Your task to perform on an android device: Open location settings Image 0: 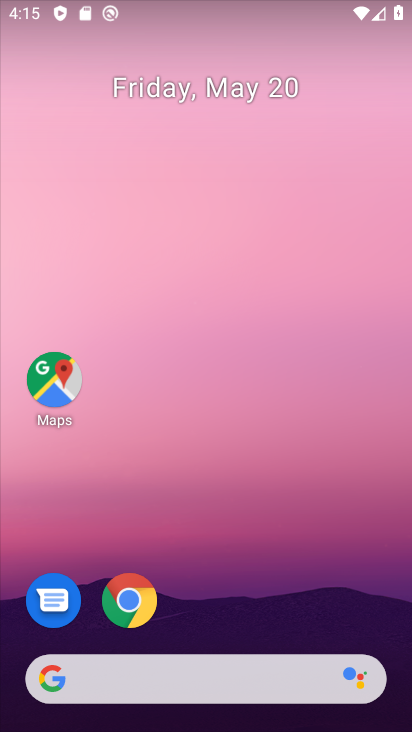
Step 0: drag from (305, 575) to (287, 54)
Your task to perform on an android device: Open location settings Image 1: 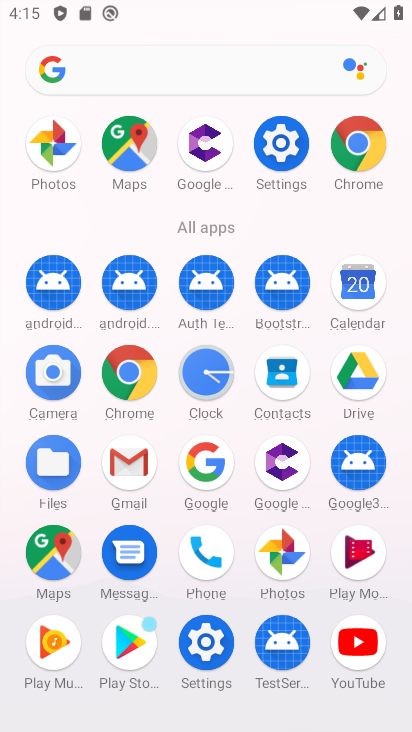
Step 1: click (284, 141)
Your task to perform on an android device: Open location settings Image 2: 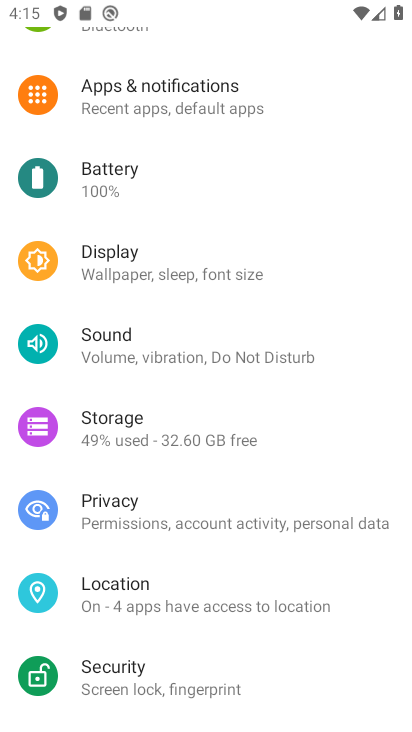
Step 2: click (162, 592)
Your task to perform on an android device: Open location settings Image 3: 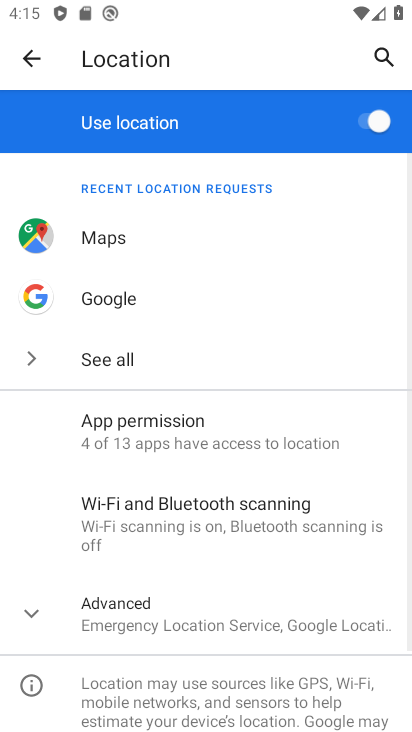
Step 3: task complete